Your task to perform on an android device: change notification settings in the gmail app Image 0: 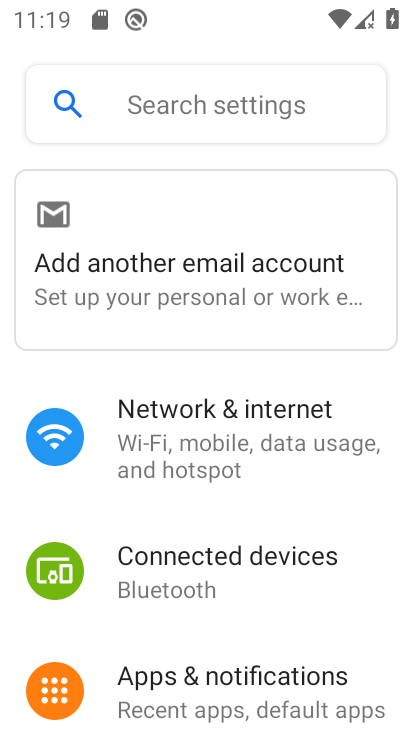
Step 0: drag from (228, 609) to (256, 421)
Your task to perform on an android device: change notification settings in the gmail app Image 1: 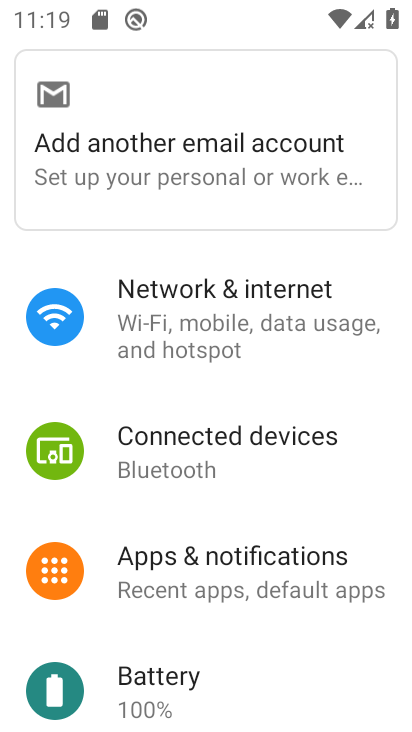
Step 1: press home button
Your task to perform on an android device: change notification settings in the gmail app Image 2: 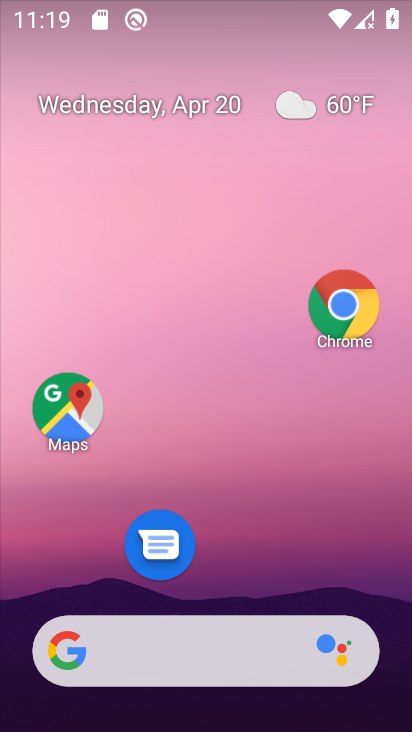
Step 2: drag from (333, 478) to (350, 141)
Your task to perform on an android device: change notification settings in the gmail app Image 3: 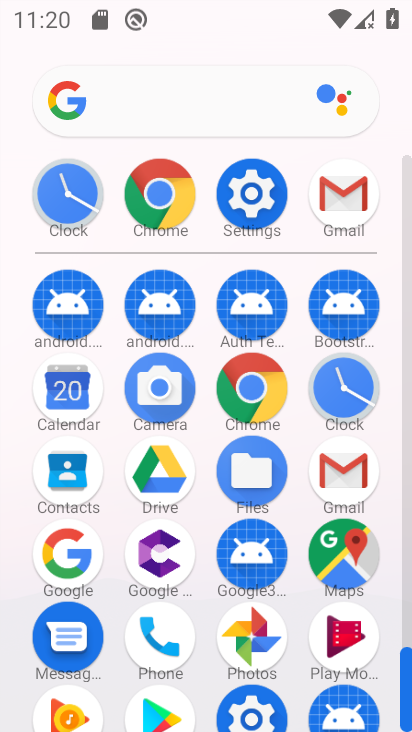
Step 3: click (363, 488)
Your task to perform on an android device: change notification settings in the gmail app Image 4: 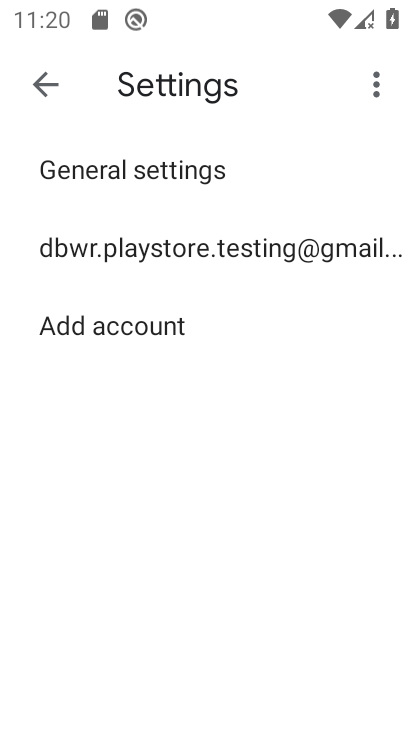
Step 4: click (202, 179)
Your task to perform on an android device: change notification settings in the gmail app Image 5: 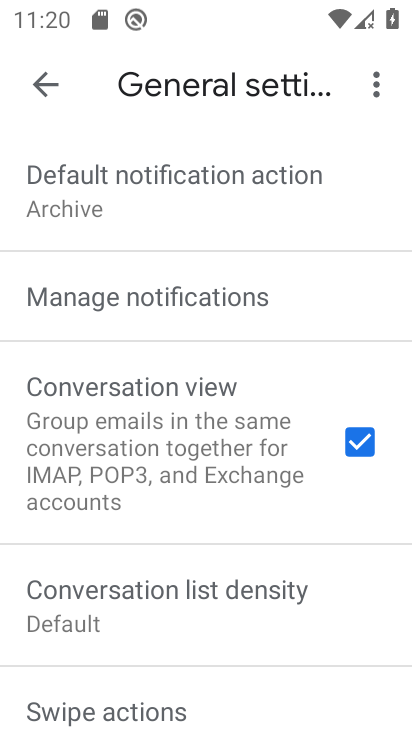
Step 5: click (191, 295)
Your task to perform on an android device: change notification settings in the gmail app Image 6: 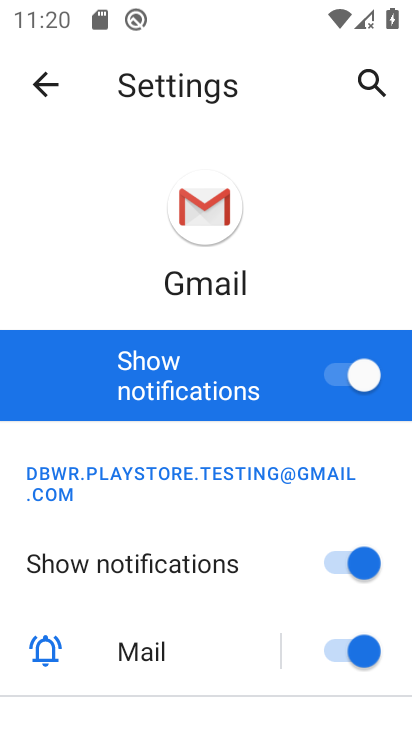
Step 6: click (342, 378)
Your task to perform on an android device: change notification settings in the gmail app Image 7: 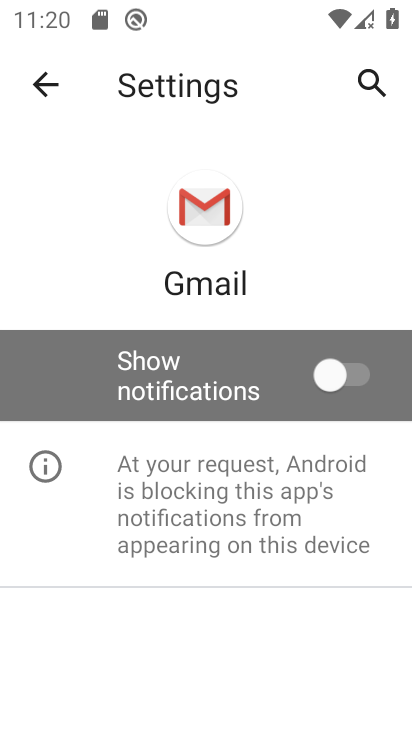
Step 7: task complete